Your task to perform on an android device: change the upload size in google photos Image 0: 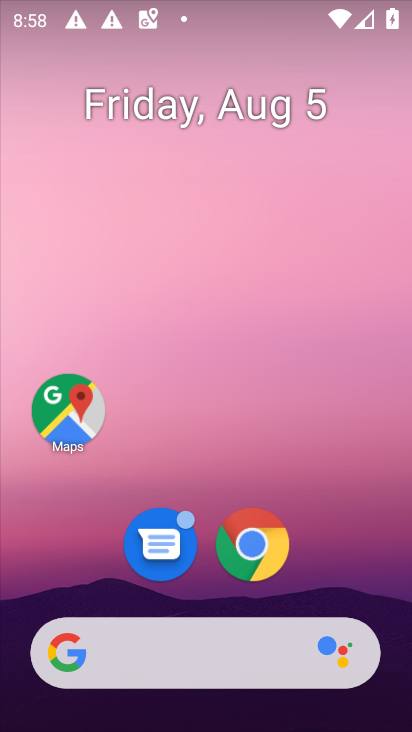
Step 0: drag from (397, 417) to (385, 95)
Your task to perform on an android device: change the upload size in google photos Image 1: 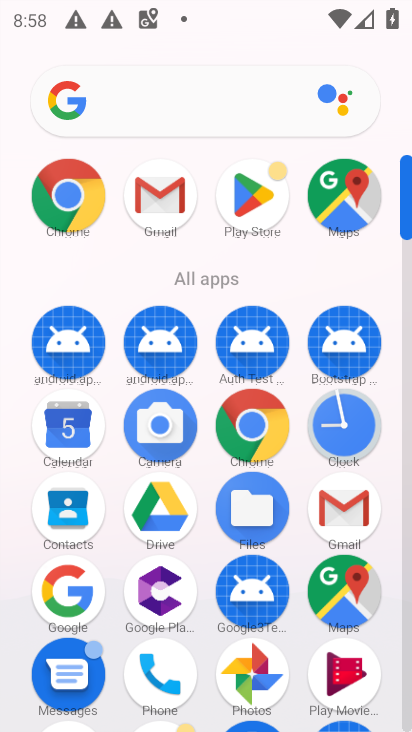
Step 1: drag from (377, 551) to (278, 142)
Your task to perform on an android device: change the upload size in google photos Image 2: 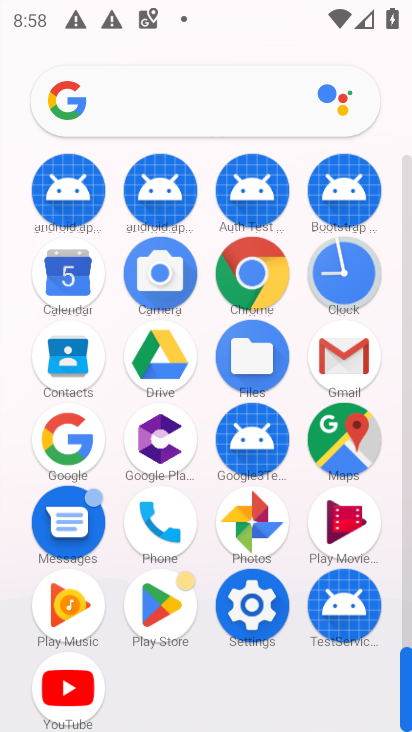
Step 2: click (246, 523)
Your task to perform on an android device: change the upload size in google photos Image 3: 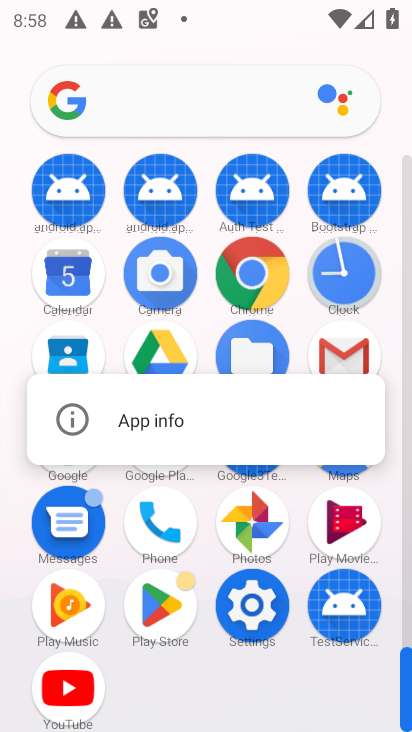
Step 3: click (245, 518)
Your task to perform on an android device: change the upload size in google photos Image 4: 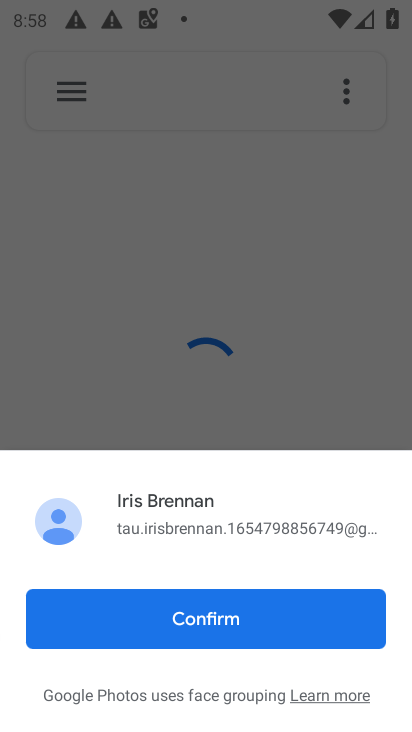
Step 4: click (79, 100)
Your task to perform on an android device: change the upload size in google photos Image 5: 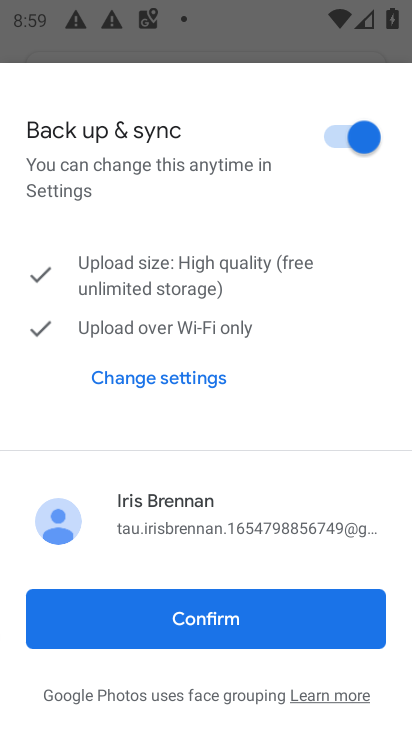
Step 5: click (192, 616)
Your task to perform on an android device: change the upload size in google photos Image 6: 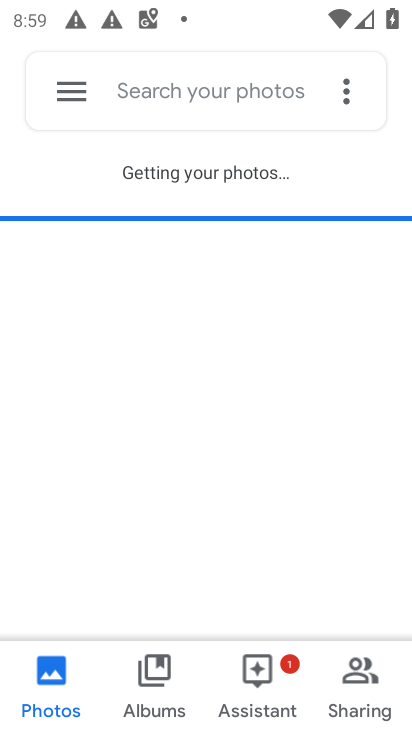
Step 6: click (74, 90)
Your task to perform on an android device: change the upload size in google photos Image 7: 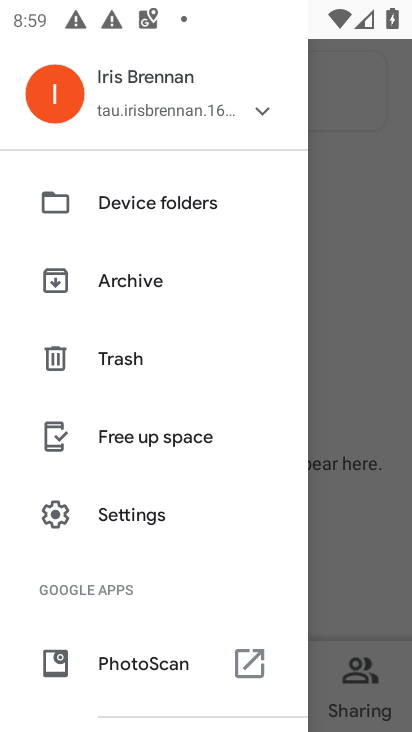
Step 7: click (115, 523)
Your task to perform on an android device: change the upload size in google photos Image 8: 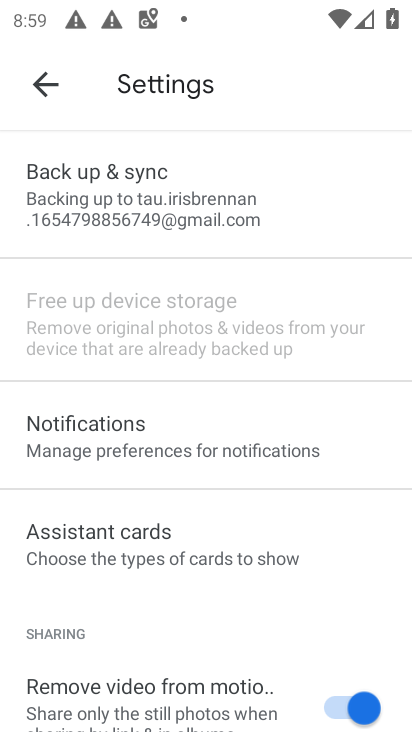
Step 8: drag from (139, 693) to (118, 298)
Your task to perform on an android device: change the upload size in google photos Image 9: 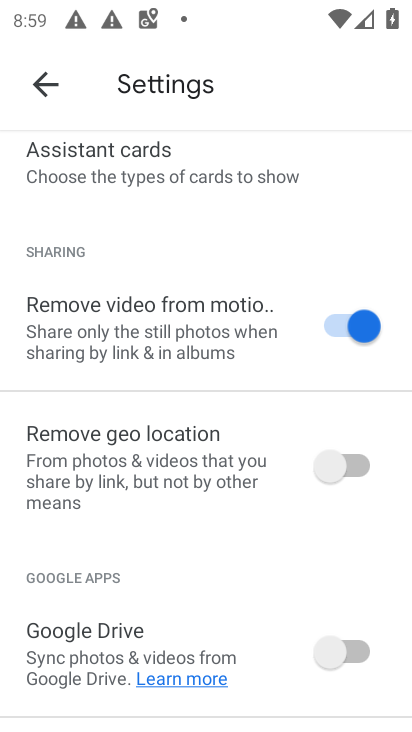
Step 9: drag from (110, 319) to (31, 721)
Your task to perform on an android device: change the upload size in google photos Image 10: 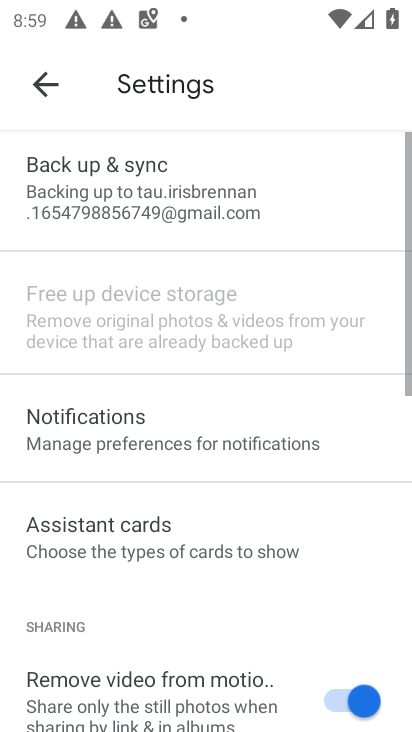
Step 10: click (77, 232)
Your task to perform on an android device: change the upload size in google photos Image 11: 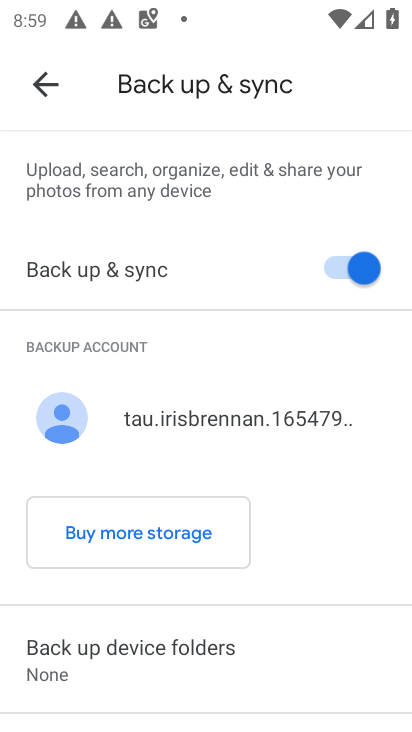
Step 11: drag from (151, 616) to (71, 158)
Your task to perform on an android device: change the upload size in google photos Image 12: 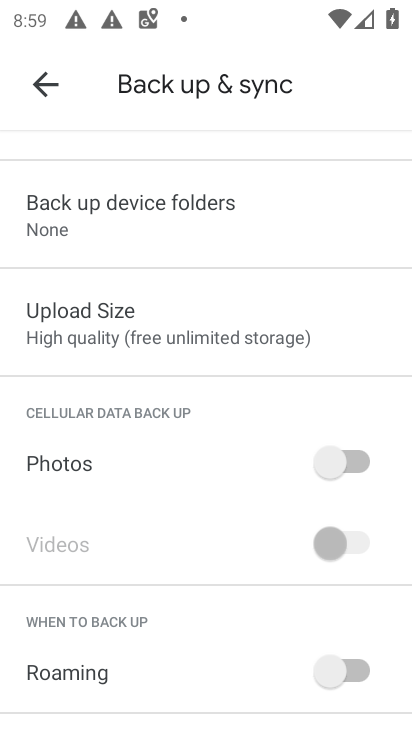
Step 12: click (73, 328)
Your task to perform on an android device: change the upload size in google photos Image 13: 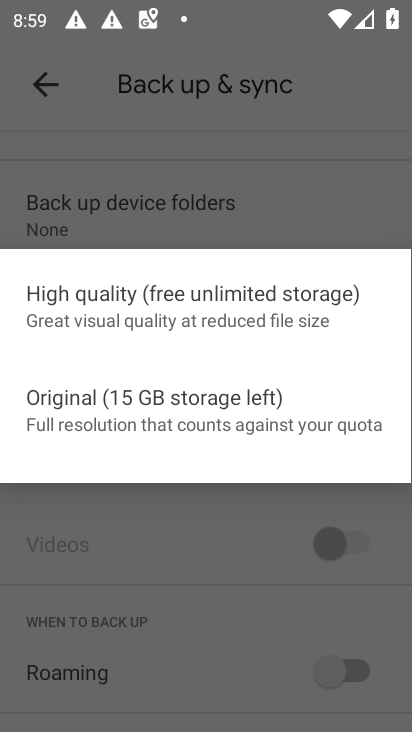
Step 13: click (57, 410)
Your task to perform on an android device: change the upload size in google photos Image 14: 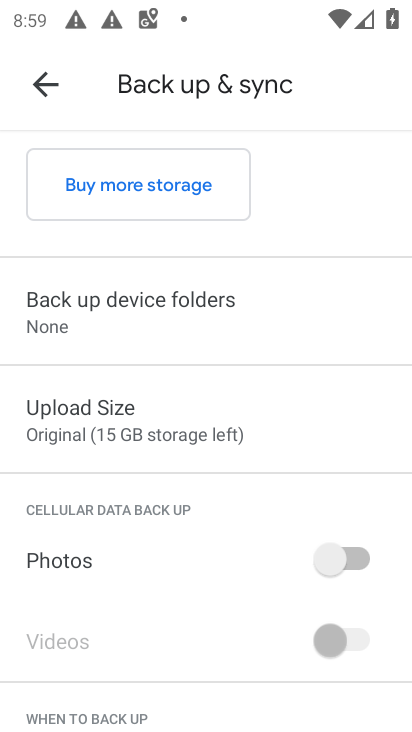
Step 14: task complete